Your task to perform on an android device: open wifi settings Image 0: 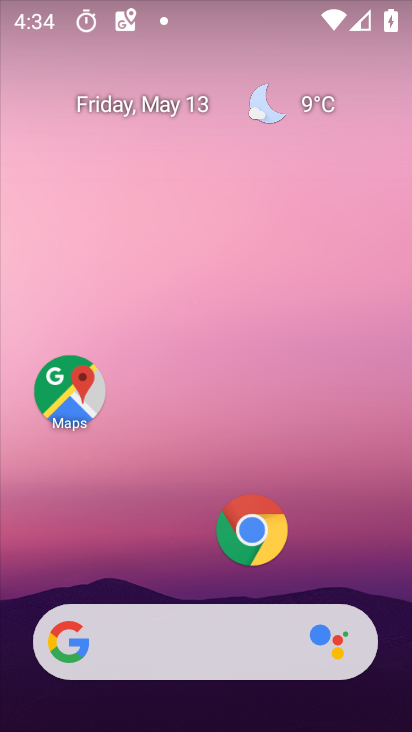
Step 0: press home button
Your task to perform on an android device: open wifi settings Image 1: 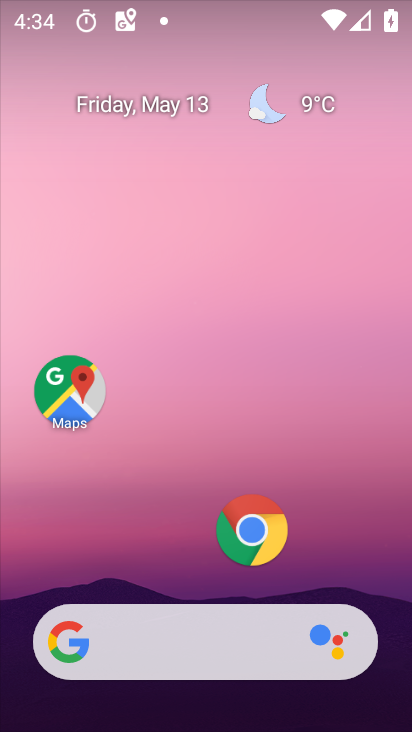
Step 1: drag from (181, 579) to (203, 40)
Your task to perform on an android device: open wifi settings Image 2: 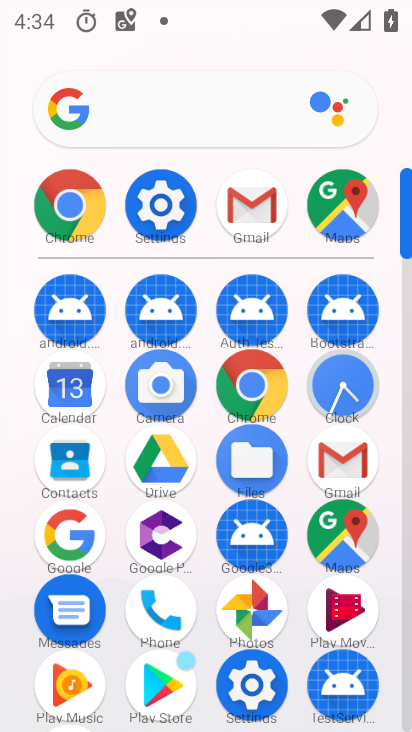
Step 2: click (159, 198)
Your task to perform on an android device: open wifi settings Image 3: 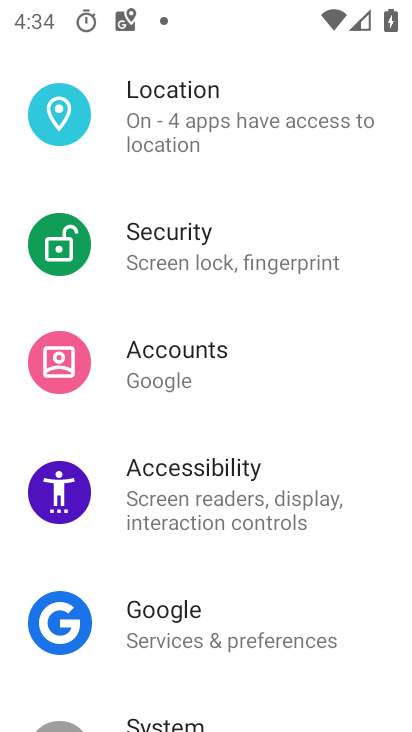
Step 3: drag from (170, 109) to (208, 715)
Your task to perform on an android device: open wifi settings Image 4: 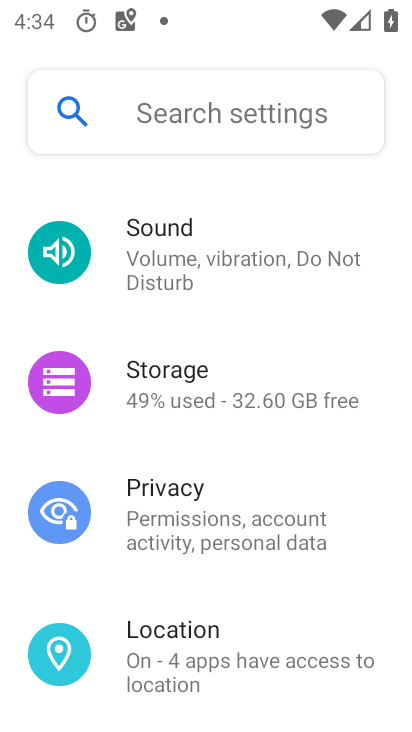
Step 4: drag from (171, 224) to (188, 728)
Your task to perform on an android device: open wifi settings Image 5: 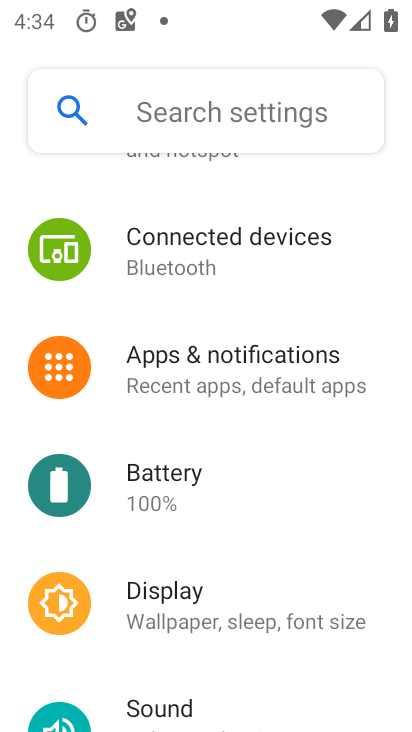
Step 5: click (174, 163)
Your task to perform on an android device: open wifi settings Image 6: 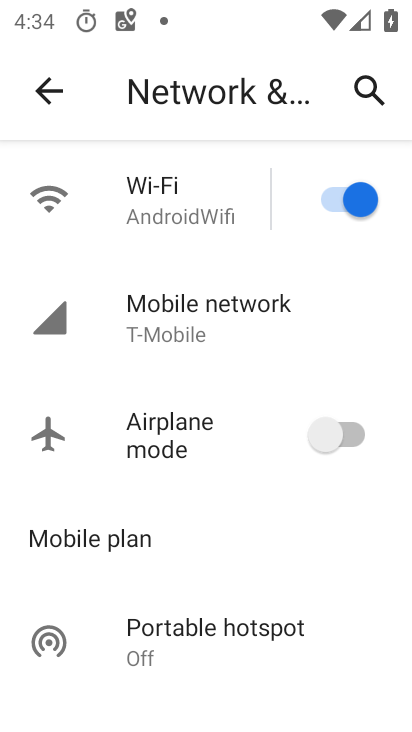
Step 6: click (178, 204)
Your task to perform on an android device: open wifi settings Image 7: 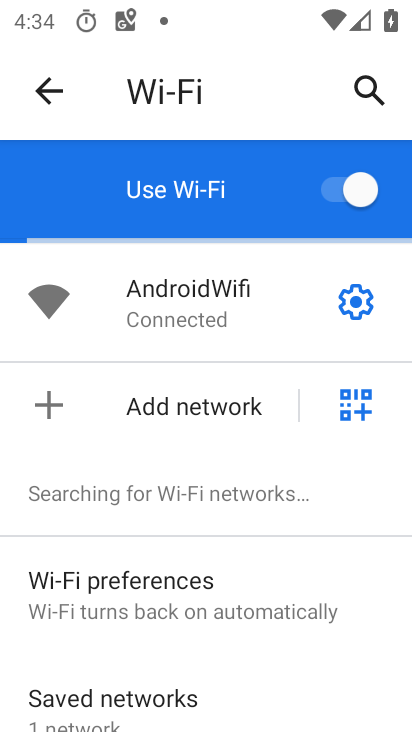
Step 7: drag from (198, 647) to (234, 279)
Your task to perform on an android device: open wifi settings Image 8: 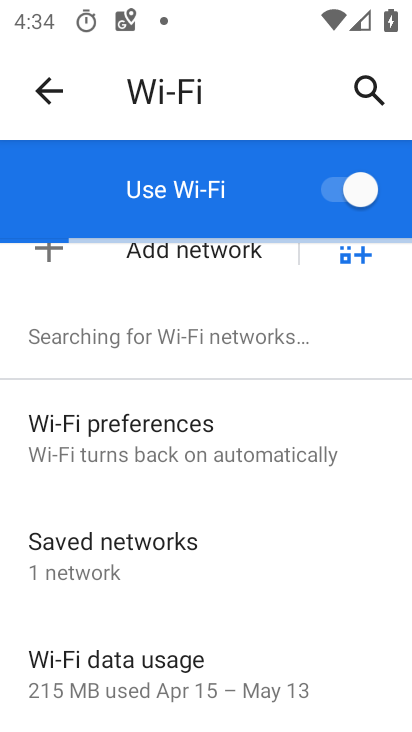
Step 8: drag from (205, 584) to (210, 293)
Your task to perform on an android device: open wifi settings Image 9: 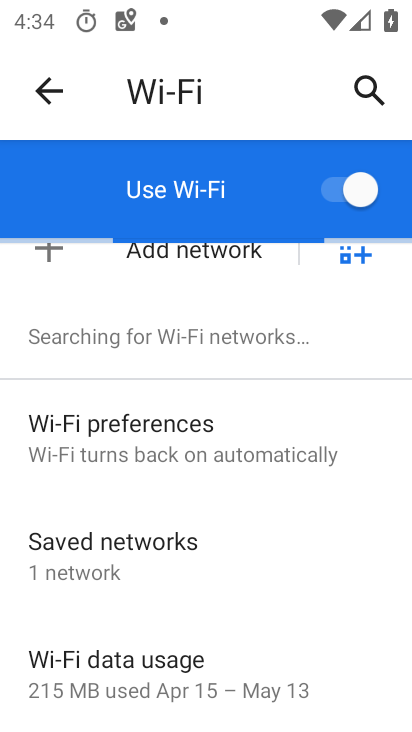
Step 9: click (173, 433)
Your task to perform on an android device: open wifi settings Image 10: 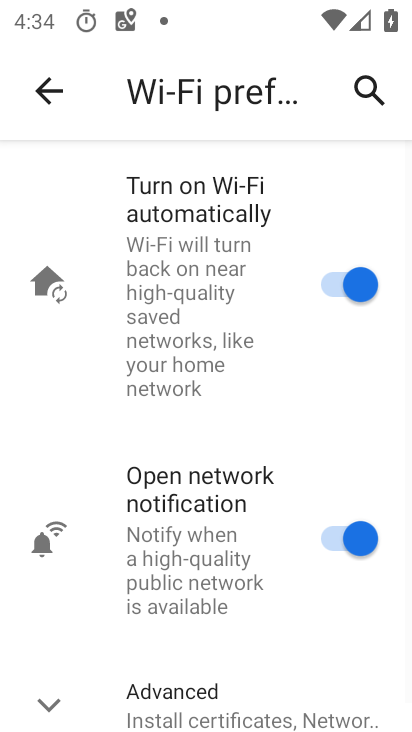
Step 10: drag from (173, 560) to (180, 200)
Your task to perform on an android device: open wifi settings Image 11: 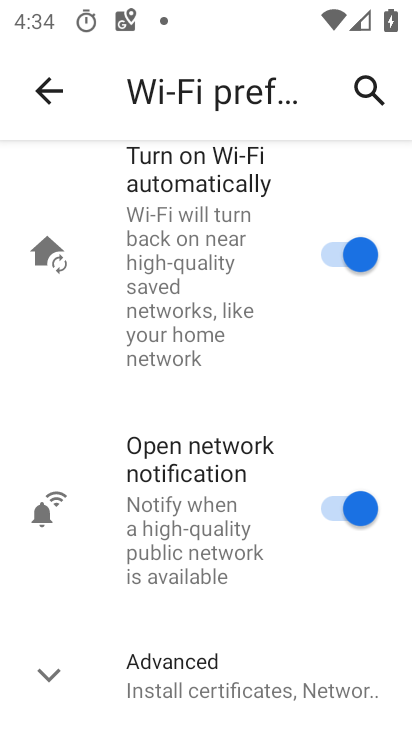
Step 11: click (52, 88)
Your task to perform on an android device: open wifi settings Image 12: 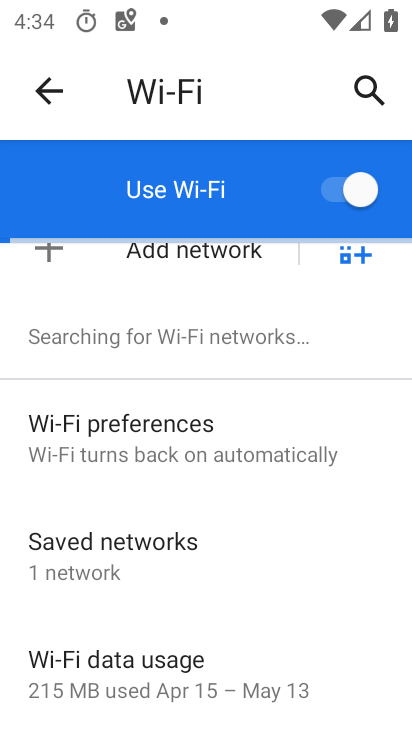
Step 12: click (143, 563)
Your task to perform on an android device: open wifi settings Image 13: 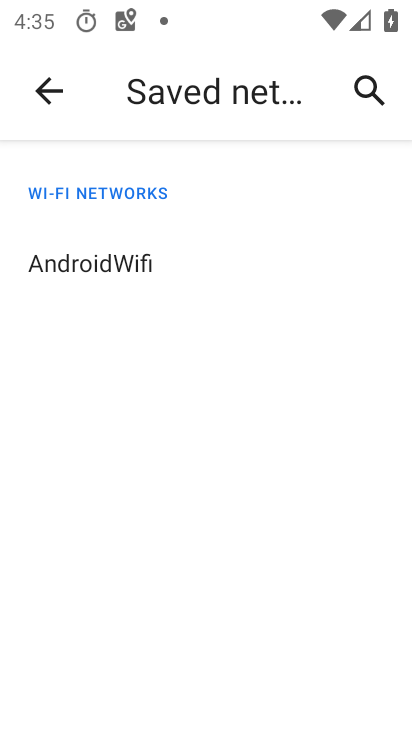
Step 13: click (54, 97)
Your task to perform on an android device: open wifi settings Image 14: 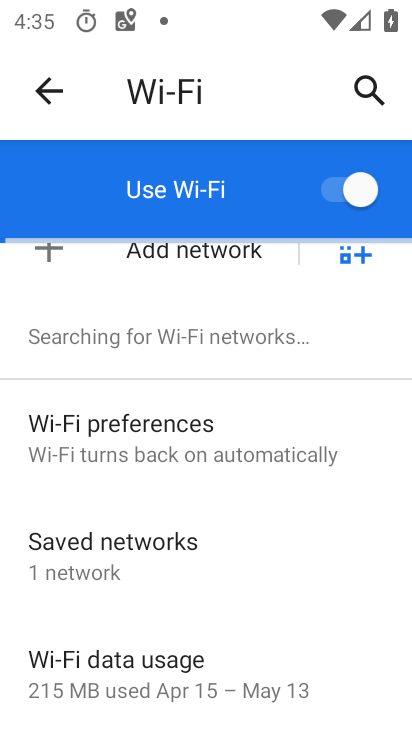
Step 14: click (141, 655)
Your task to perform on an android device: open wifi settings Image 15: 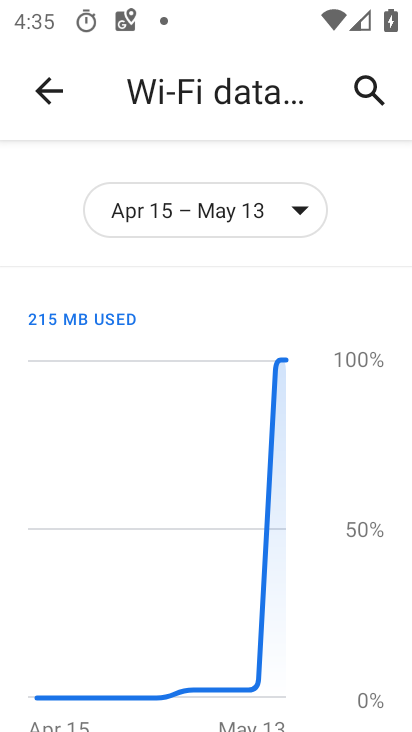
Step 15: task complete